Your task to perform on an android device: turn on translation in the chrome app Image 0: 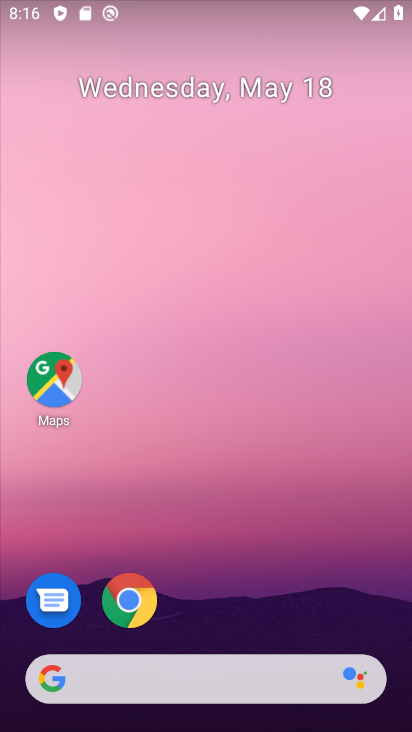
Step 0: click (140, 597)
Your task to perform on an android device: turn on translation in the chrome app Image 1: 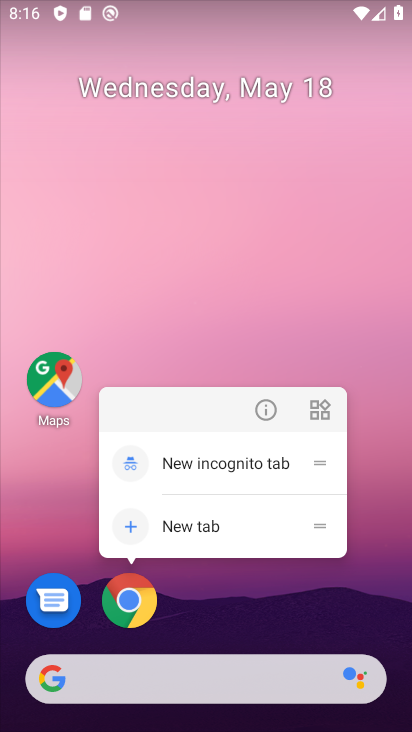
Step 1: click (126, 599)
Your task to perform on an android device: turn on translation in the chrome app Image 2: 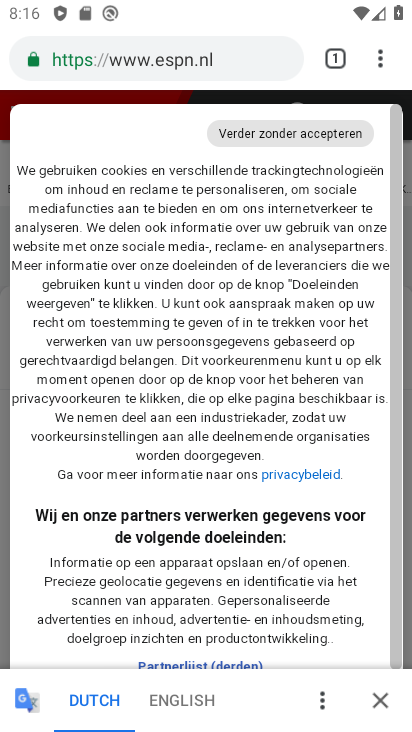
Step 2: click (381, 61)
Your task to perform on an android device: turn on translation in the chrome app Image 3: 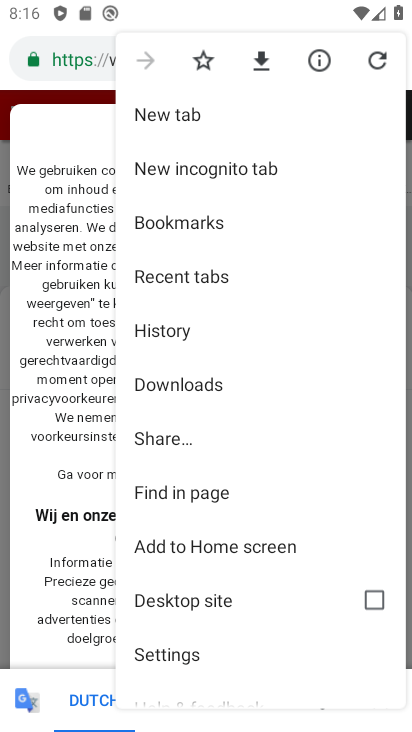
Step 3: click (169, 654)
Your task to perform on an android device: turn on translation in the chrome app Image 4: 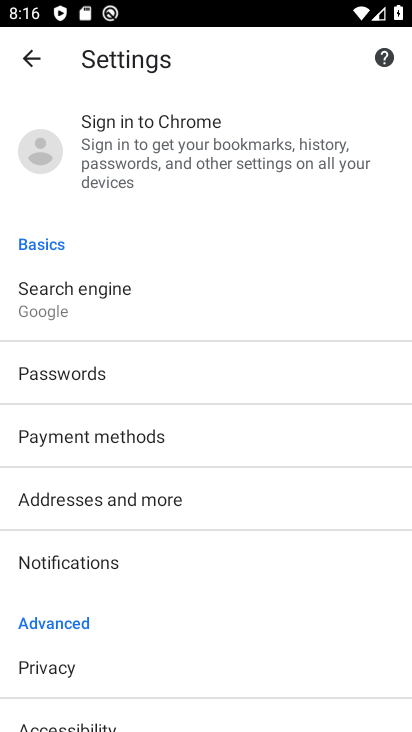
Step 4: drag from (45, 723) to (194, 185)
Your task to perform on an android device: turn on translation in the chrome app Image 5: 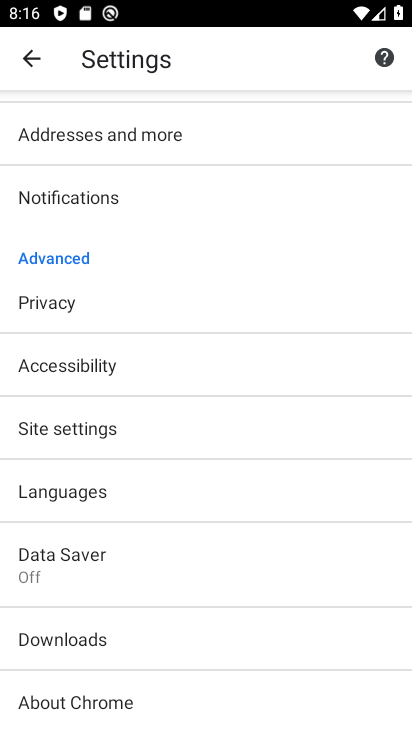
Step 5: click (103, 509)
Your task to perform on an android device: turn on translation in the chrome app Image 6: 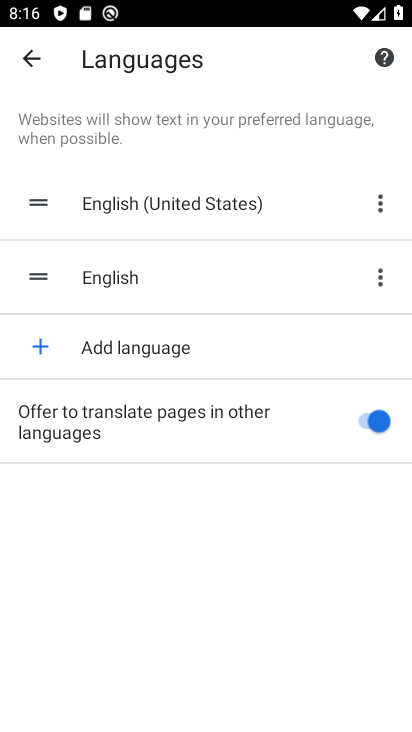
Step 6: click (378, 419)
Your task to perform on an android device: turn on translation in the chrome app Image 7: 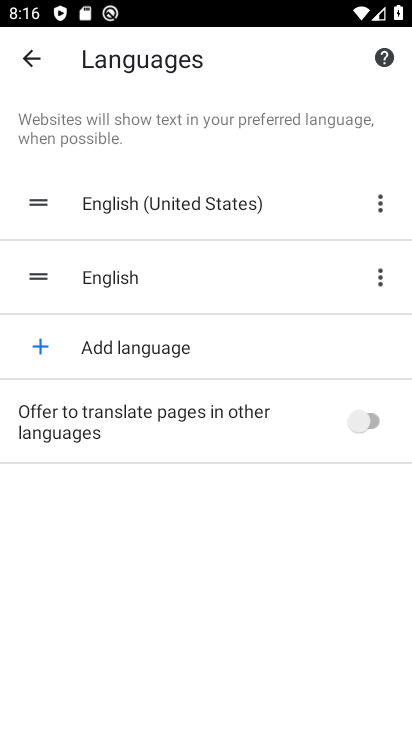
Step 7: task complete